Your task to perform on an android device: Search for Italian restaurants on Maps Image 0: 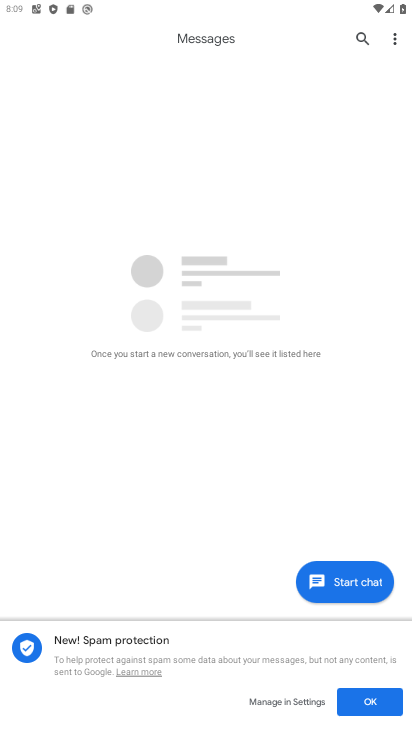
Step 0: press back button
Your task to perform on an android device: Search for Italian restaurants on Maps Image 1: 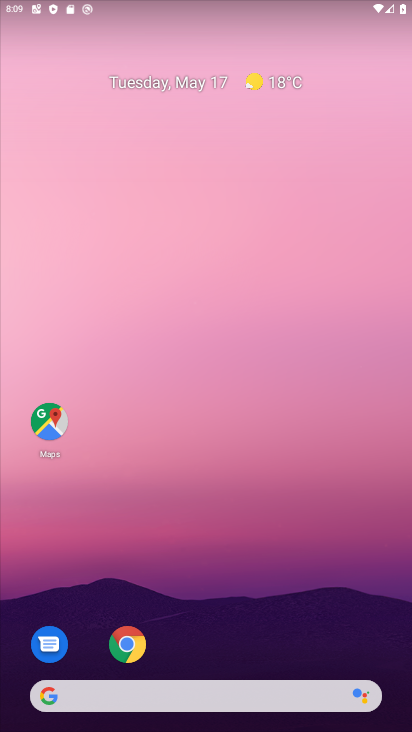
Step 1: click (64, 414)
Your task to perform on an android device: Search for Italian restaurants on Maps Image 2: 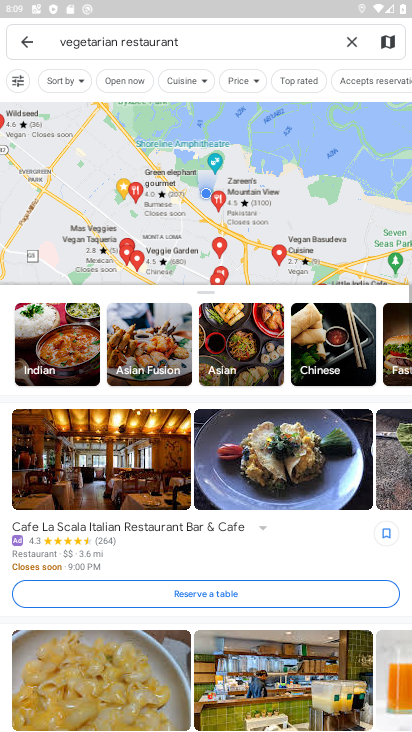
Step 2: click (363, 41)
Your task to perform on an android device: Search for Italian restaurants on Maps Image 3: 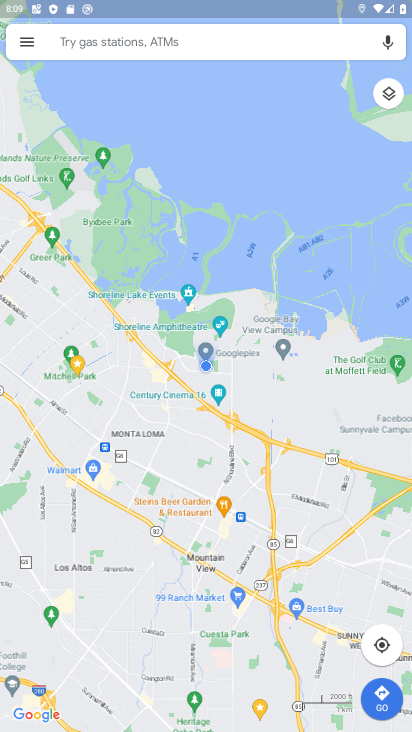
Step 3: click (186, 42)
Your task to perform on an android device: Search for Italian restaurants on Maps Image 4: 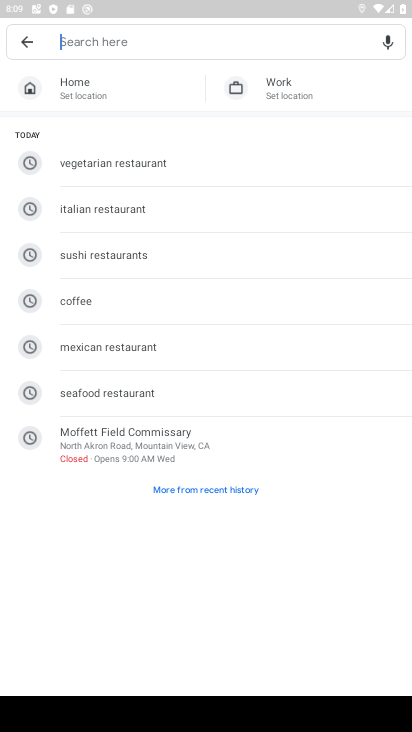
Step 4: click (92, 208)
Your task to perform on an android device: Search for Italian restaurants on Maps Image 5: 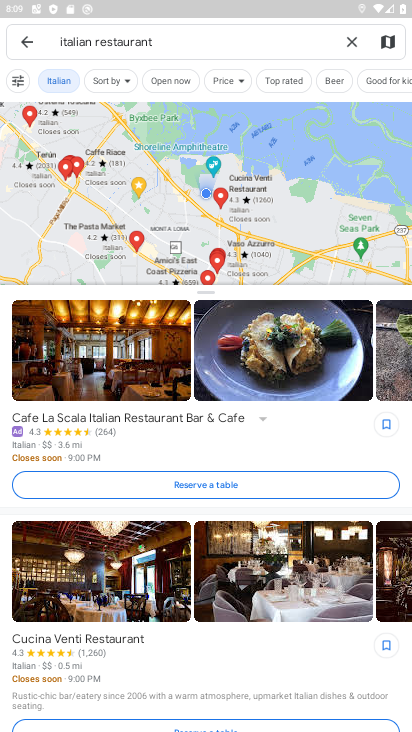
Step 5: task complete